Your task to perform on an android device: Search for pizza restaurants on Maps Image 0: 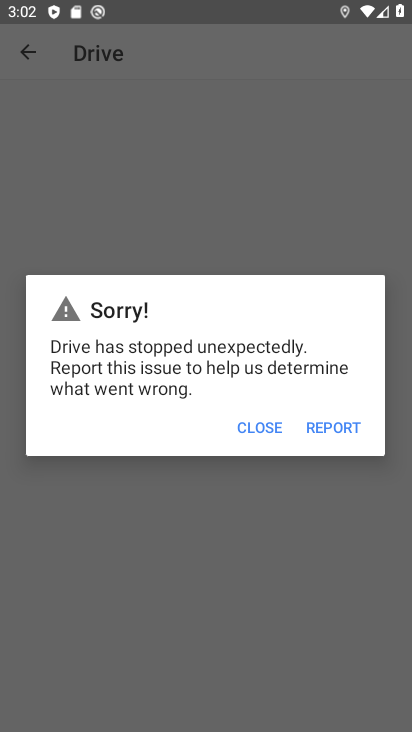
Step 0: press home button
Your task to perform on an android device: Search for pizza restaurants on Maps Image 1: 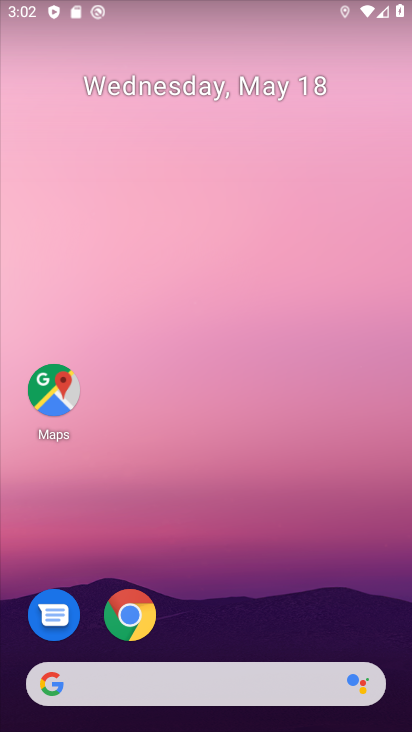
Step 1: click (69, 424)
Your task to perform on an android device: Search for pizza restaurants on Maps Image 2: 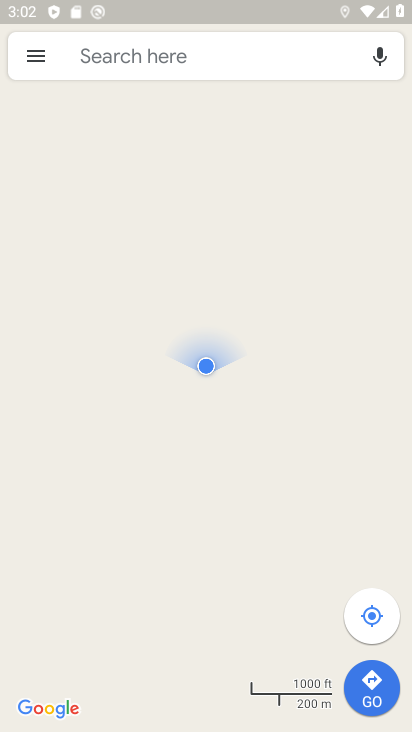
Step 2: click (154, 61)
Your task to perform on an android device: Search for pizza restaurants on Maps Image 3: 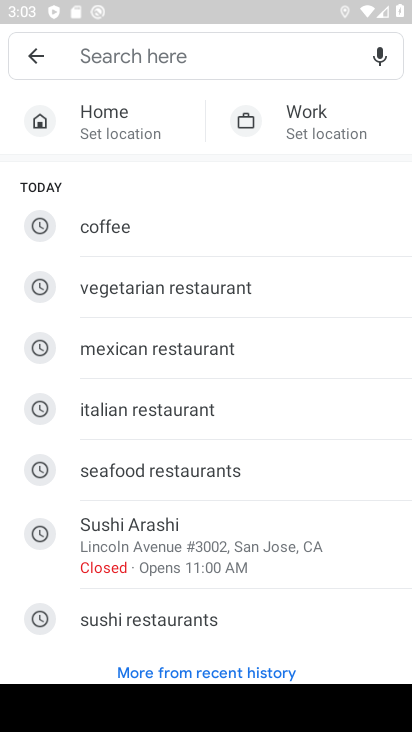
Step 3: type "Pizza restaurants"
Your task to perform on an android device: Search for pizza restaurants on Maps Image 4: 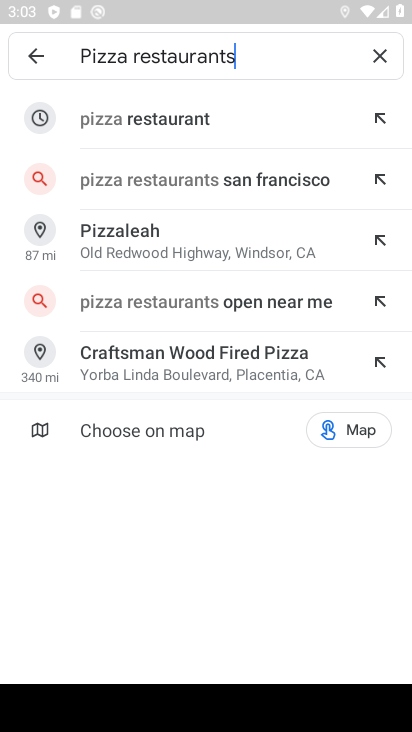
Step 4: click (209, 134)
Your task to perform on an android device: Search for pizza restaurants on Maps Image 5: 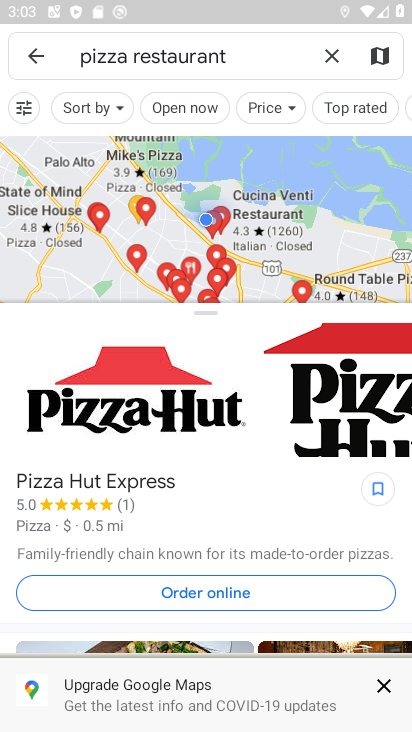
Step 5: click (391, 690)
Your task to perform on an android device: Search for pizza restaurants on Maps Image 6: 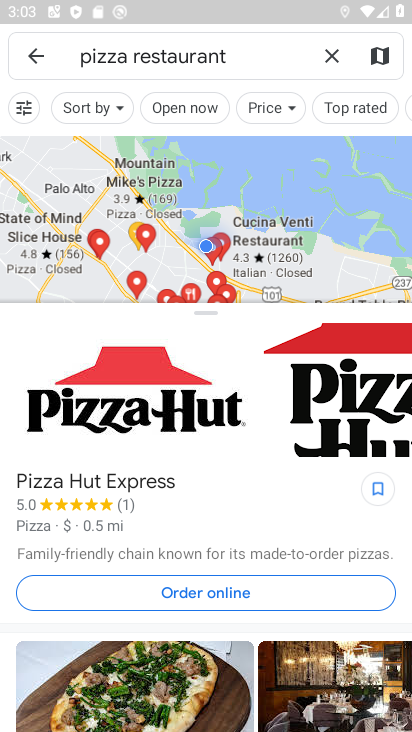
Step 6: task complete